Your task to perform on an android device: check google app version Image 0: 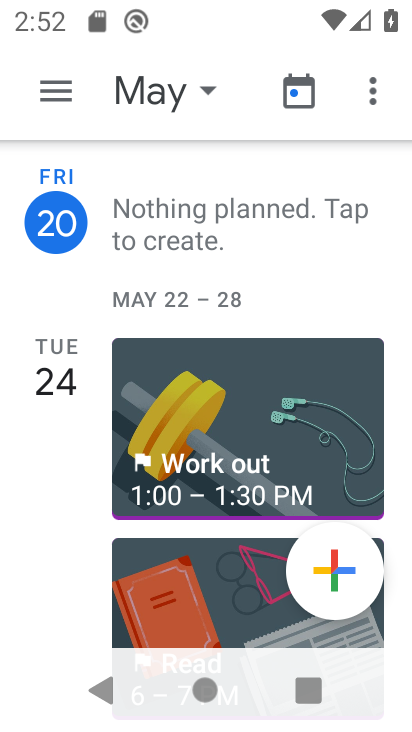
Step 0: press home button
Your task to perform on an android device: check google app version Image 1: 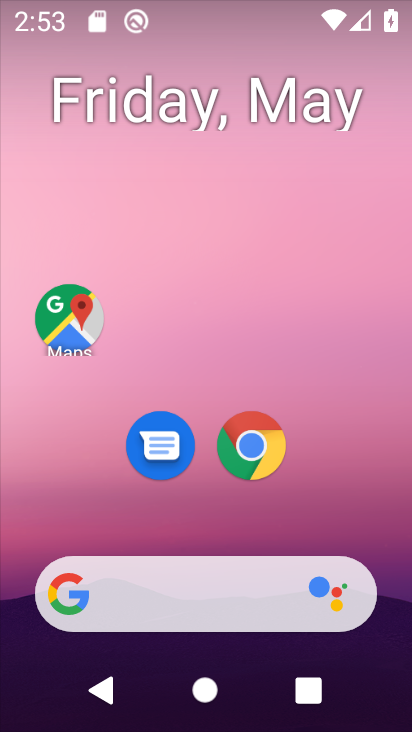
Step 1: drag from (190, 541) to (232, 160)
Your task to perform on an android device: check google app version Image 2: 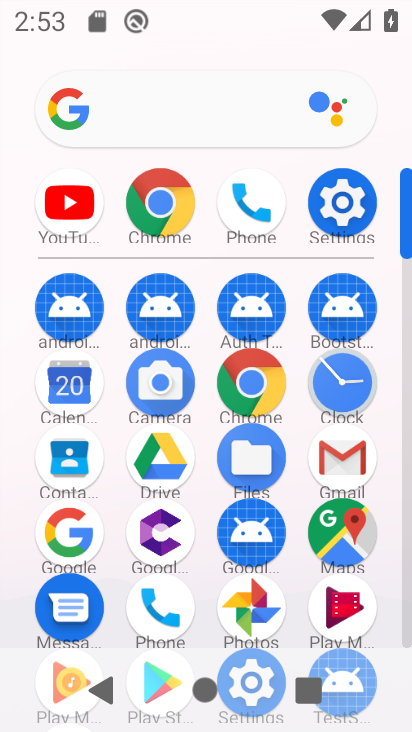
Step 2: click (60, 531)
Your task to perform on an android device: check google app version Image 3: 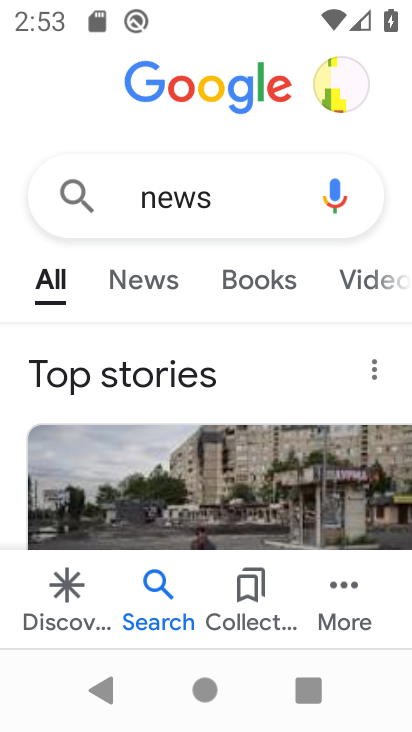
Step 3: click (332, 574)
Your task to perform on an android device: check google app version Image 4: 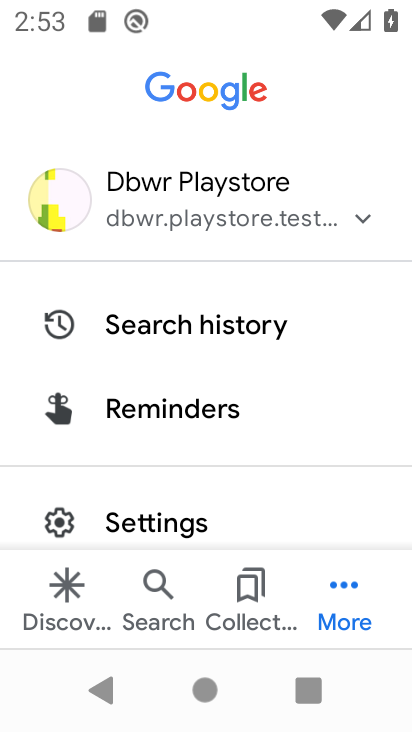
Step 4: drag from (149, 524) to (164, 484)
Your task to perform on an android device: check google app version Image 5: 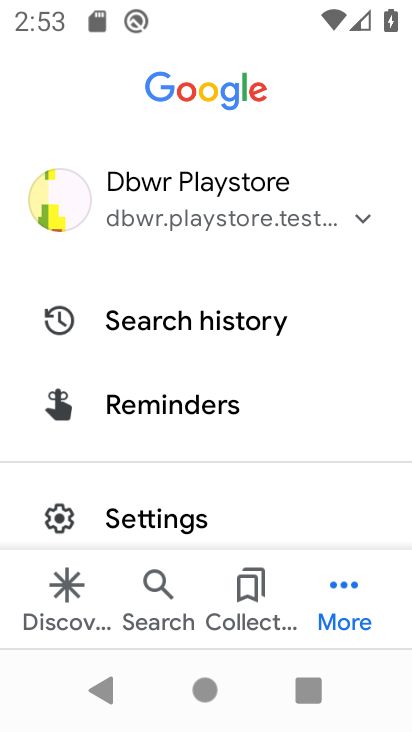
Step 5: click (142, 497)
Your task to perform on an android device: check google app version Image 6: 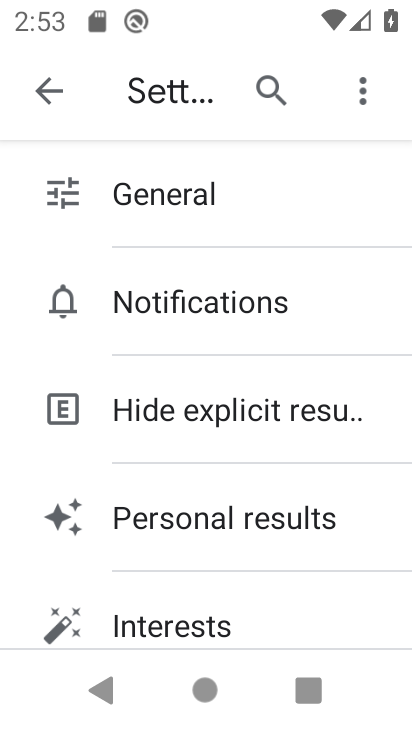
Step 6: drag from (247, 617) to (380, 183)
Your task to perform on an android device: check google app version Image 7: 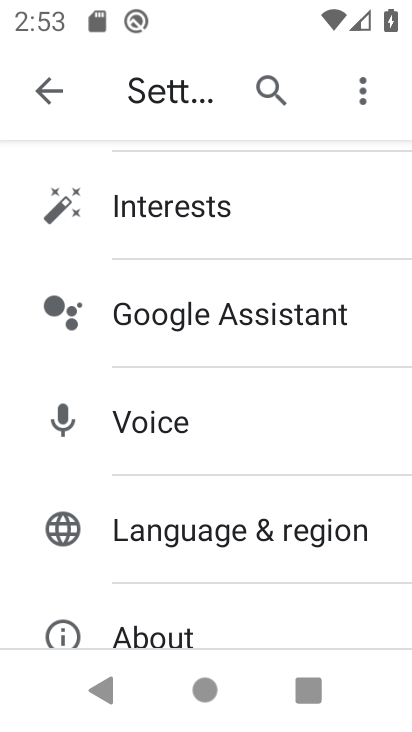
Step 7: drag from (221, 595) to (239, 506)
Your task to perform on an android device: check google app version Image 8: 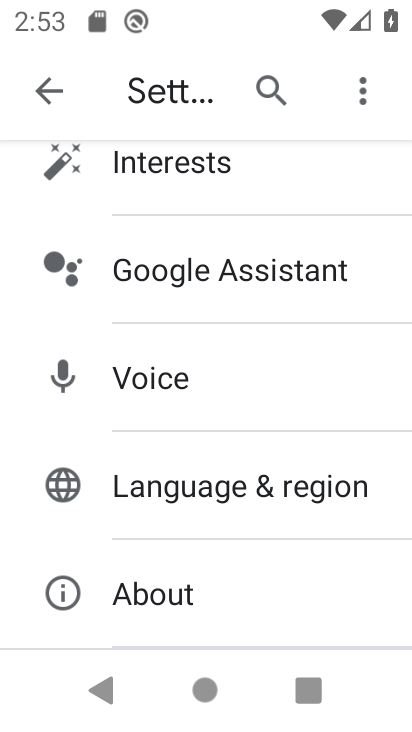
Step 8: click (150, 591)
Your task to perform on an android device: check google app version Image 9: 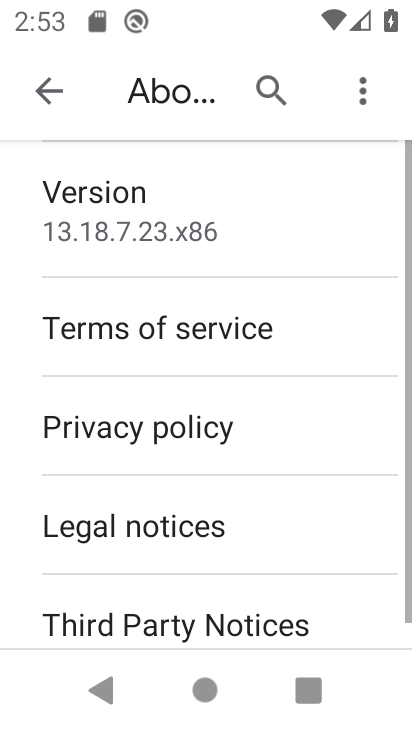
Step 9: click (171, 238)
Your task to perform on an android device: check google app version Image 10: 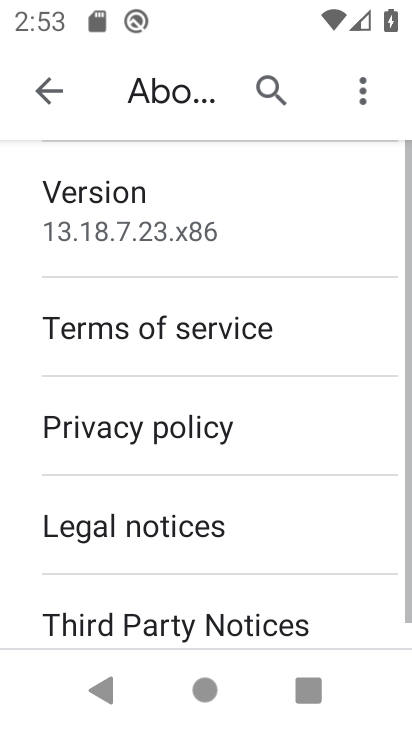
Step 10: task complete